Your task to perform on an android device: Is it going to rain today? Image 0: 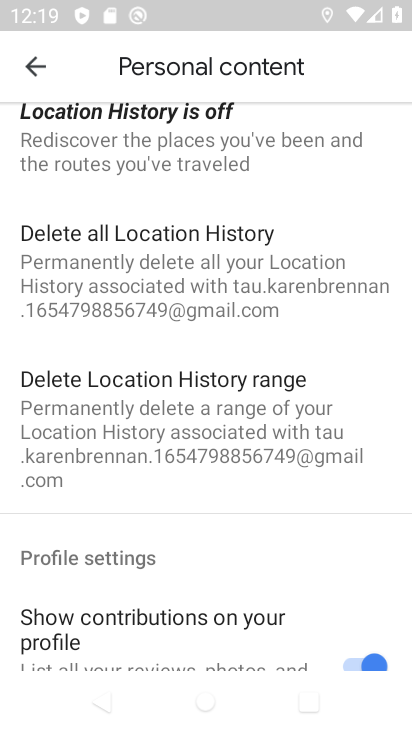
Step 0: press home button
Your task to perform on an android device: Is it going to rain today? Image 1: 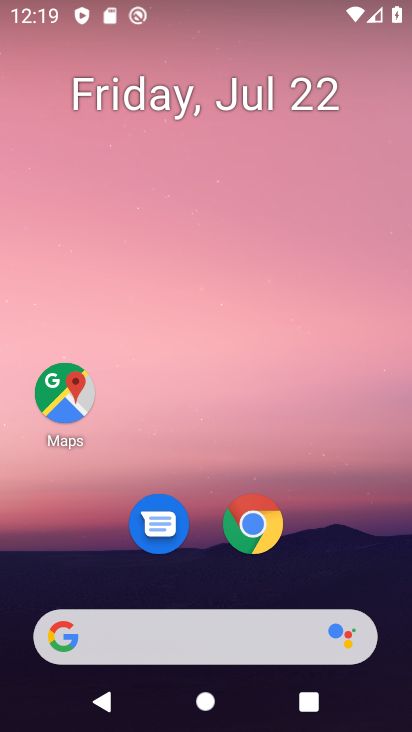
Step 1: click (117, 630)
Your task to perform on an android device: Is it going to rain today? Image 2: 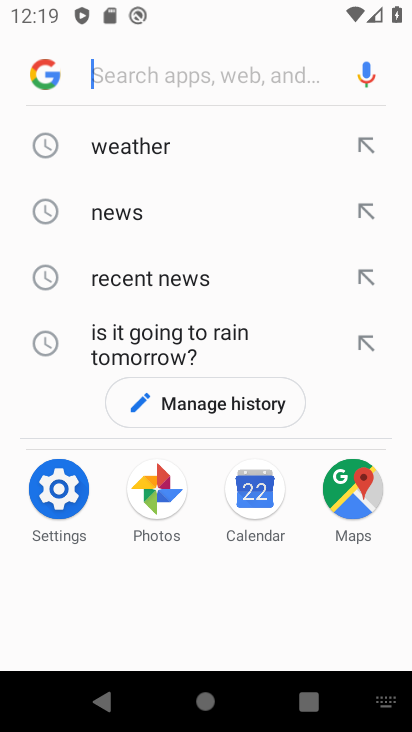
Step 2: click (150, 145)
Your task to perform on an android device: Is it going to rain today? Image 3: 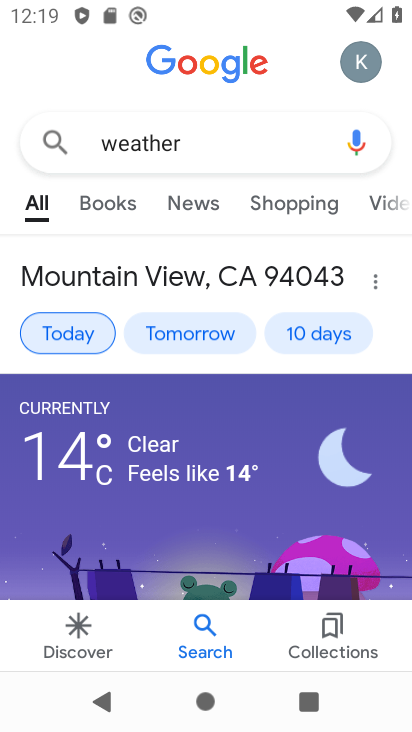
Step 3: task complete